Your task to perform on an android device: change your default location settings in chrome Image 0: 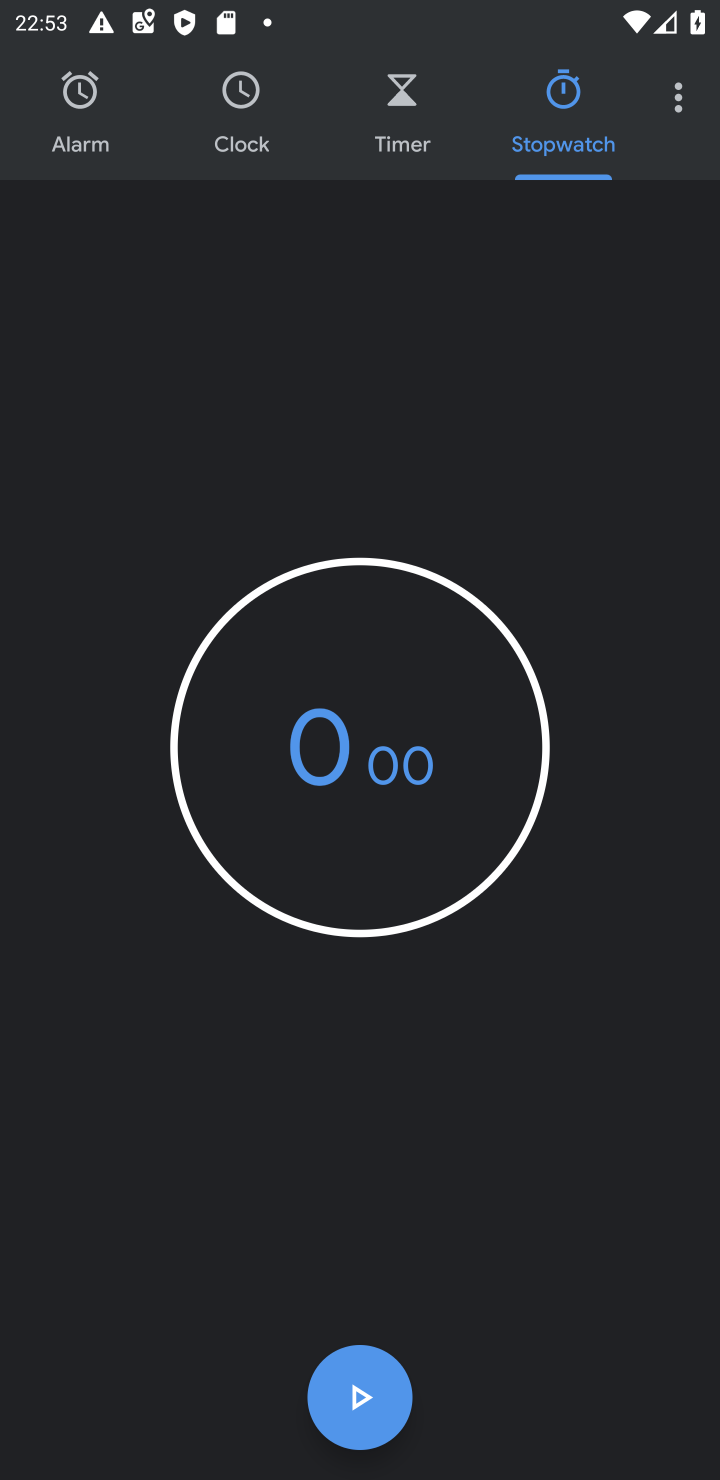
Step 0: press home button
Your task to perform on an android device: change your default location settings in chrome Image 1: 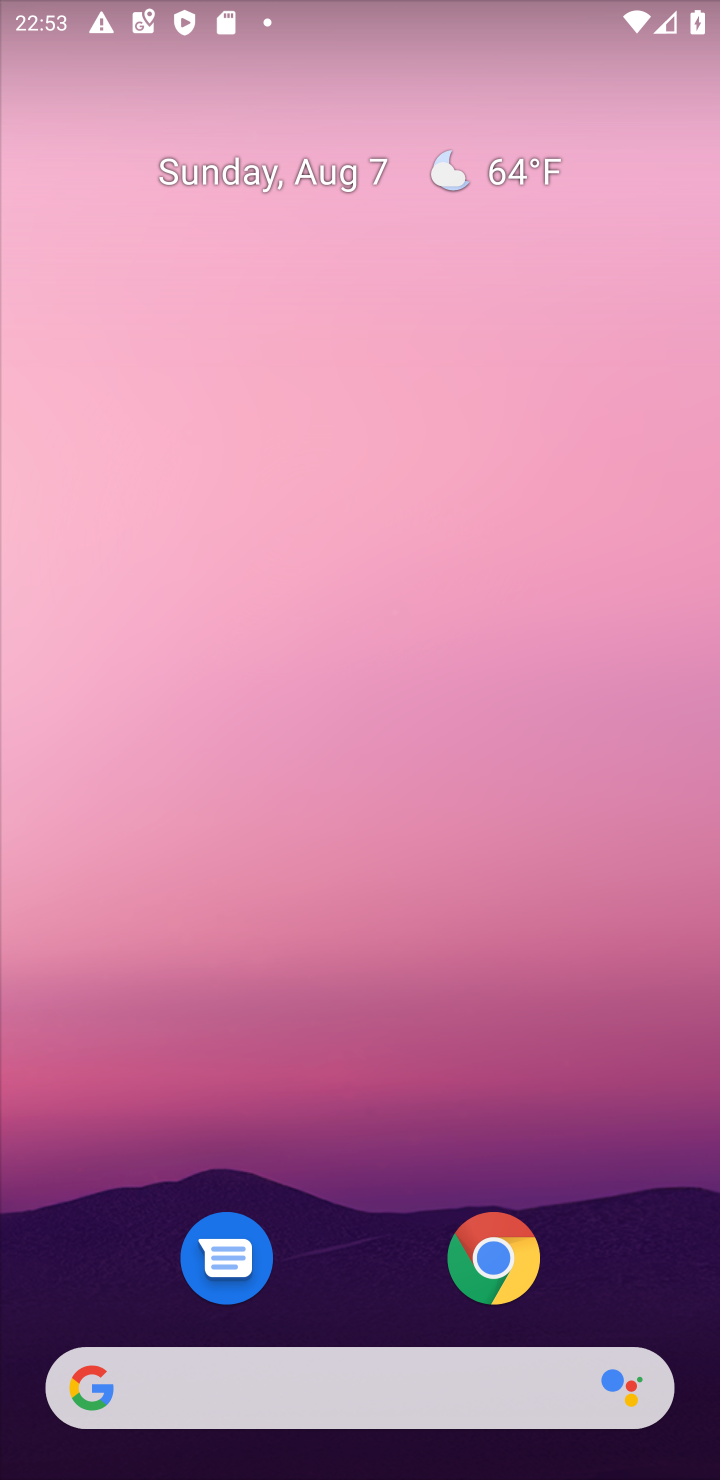
Step 1: drag from (377, 1151) to (385, 188)
Your task to perform on an android device: change your default location settings in chrome Image 2: 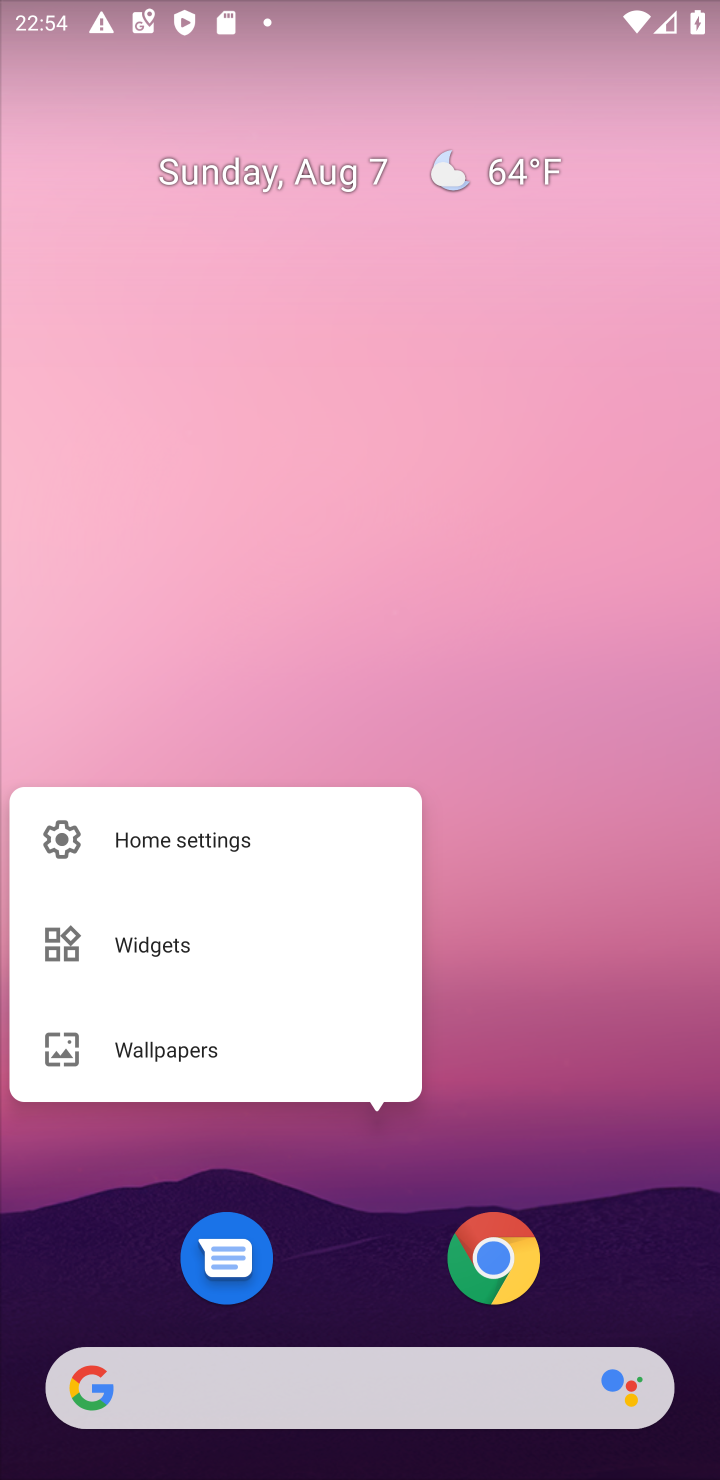
Step 2: click (630, 943)
Your task to perform on an android device: change your default location settings in chrome Image 3: 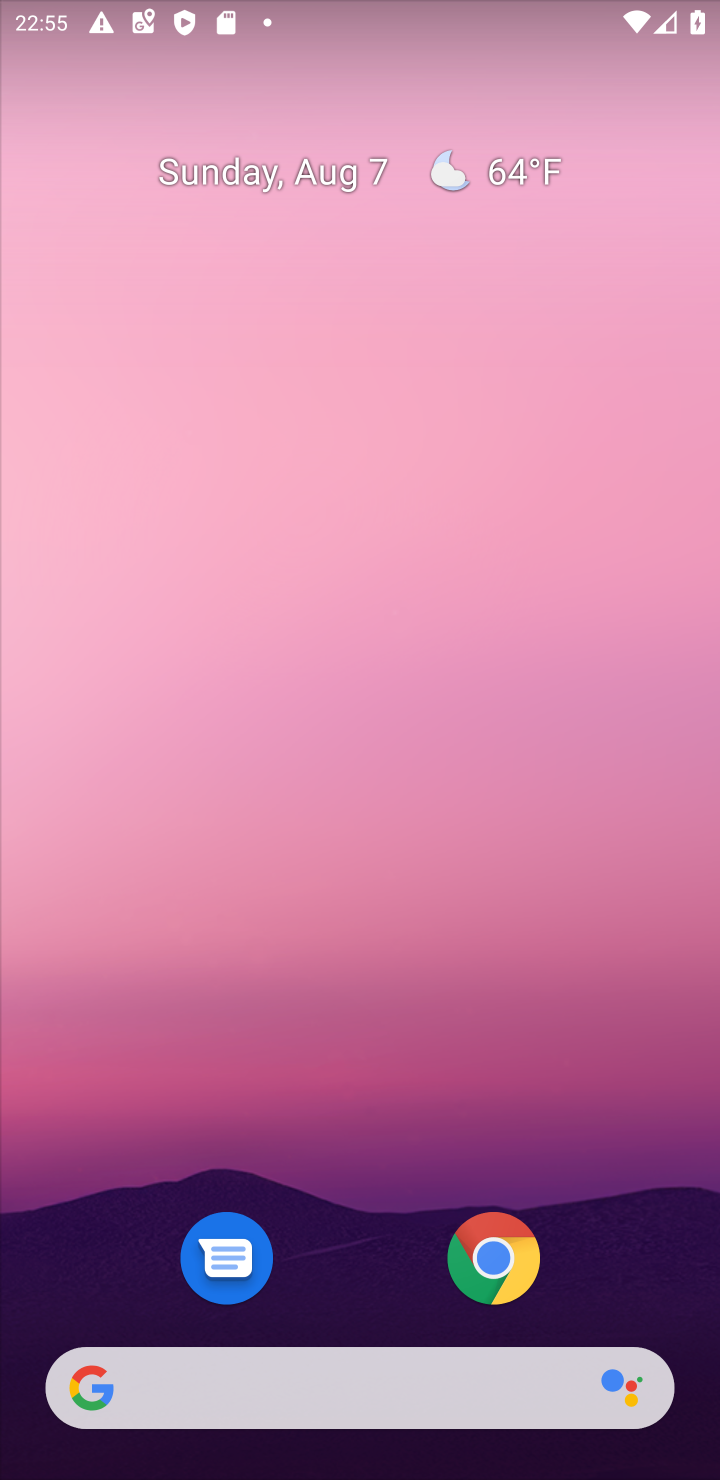
Step 3: drag from (336, 1250) to (451, 35)
Your task to perform on an android device: change your default location settings in chrome Image 4: 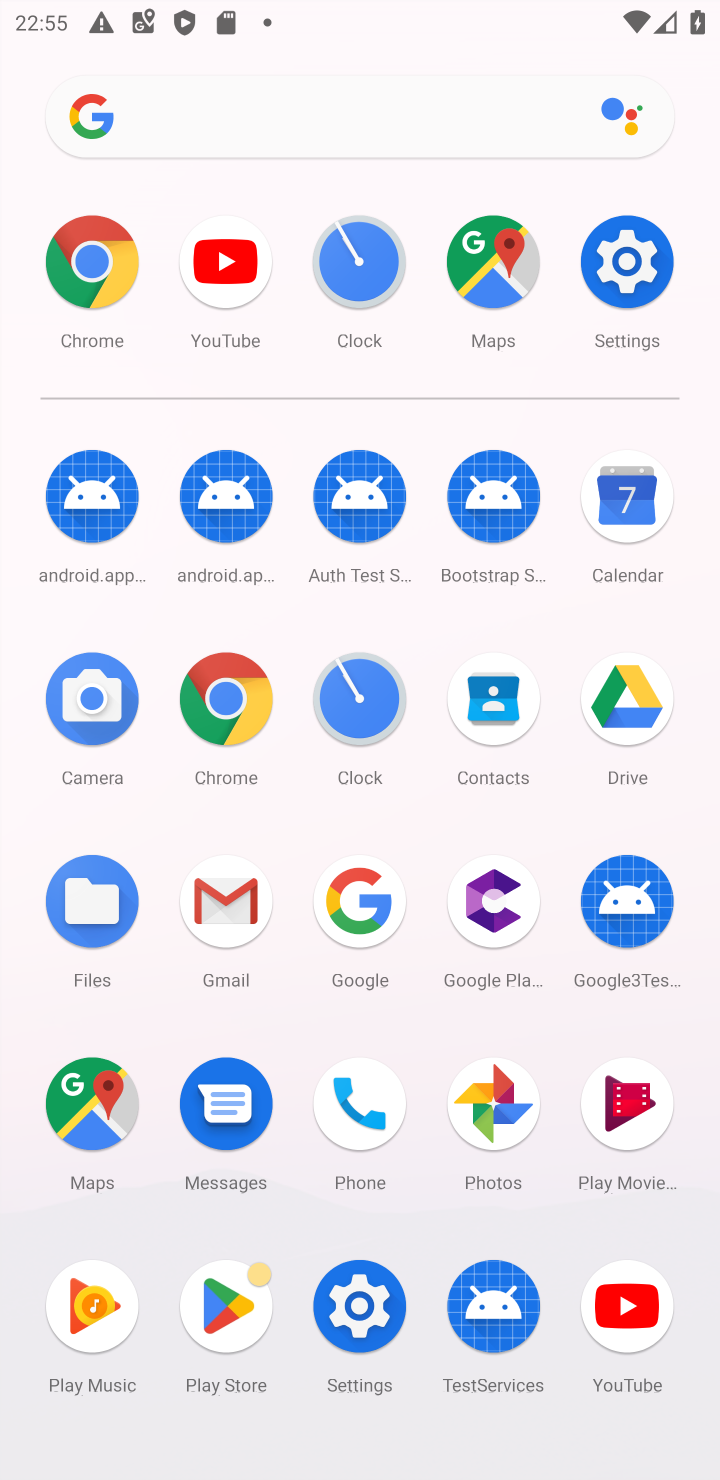
Step 4: click (377, 1310)
Your task to perform on an android device: change your default location settings in chrome Image 5: 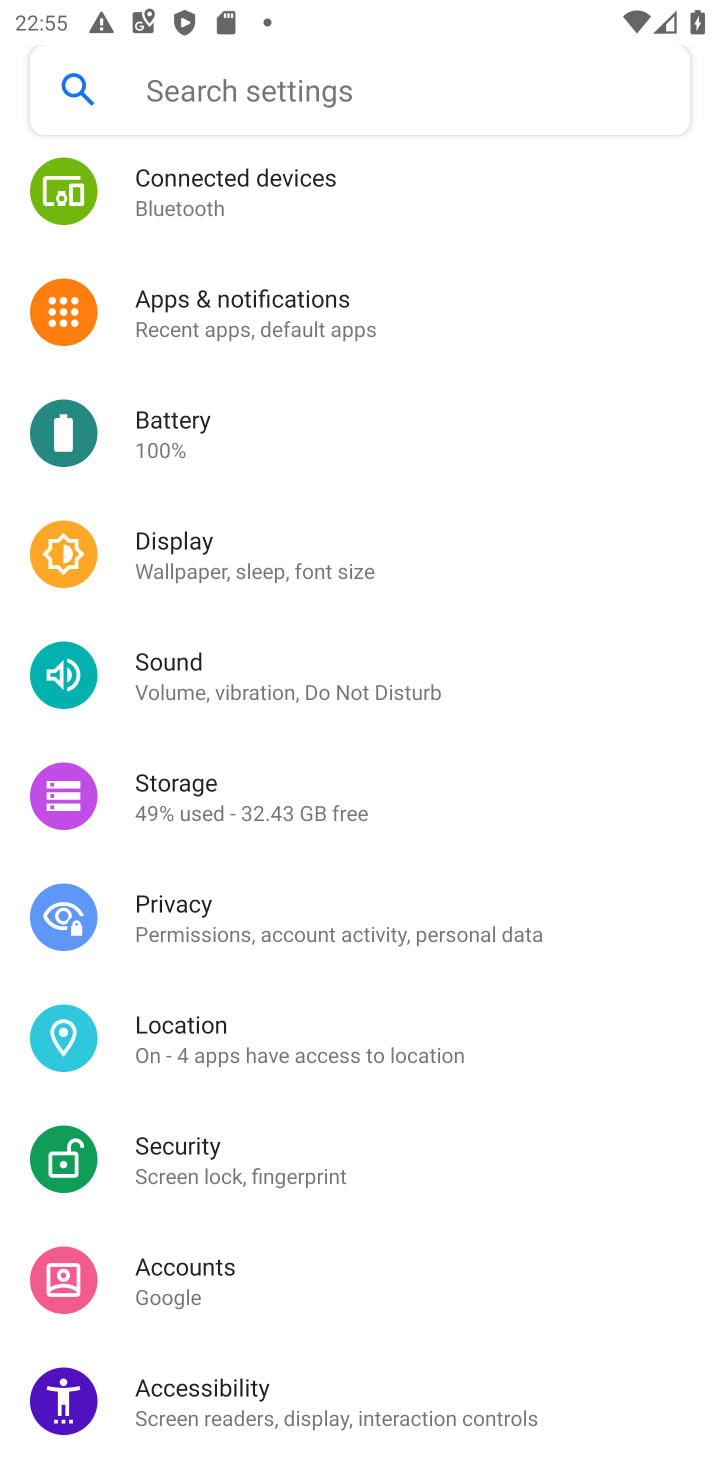
Step 5: drag from (318, 1279) to (443, 308)
Your task to perform on an android device: change your default location settings in chrome Image 6: 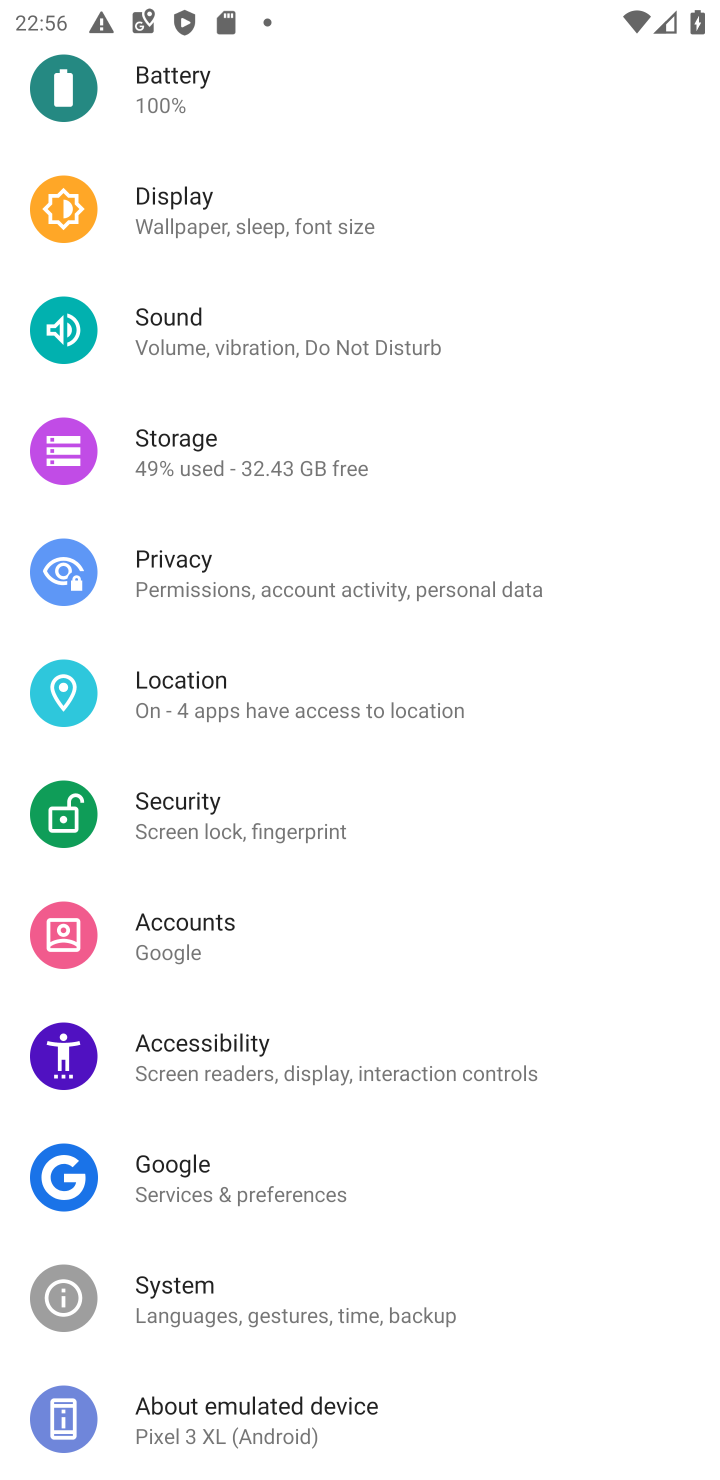
Step 6: click (189, 674)
Your task to perform on an android device: change your default location settings in chrome Image 7: 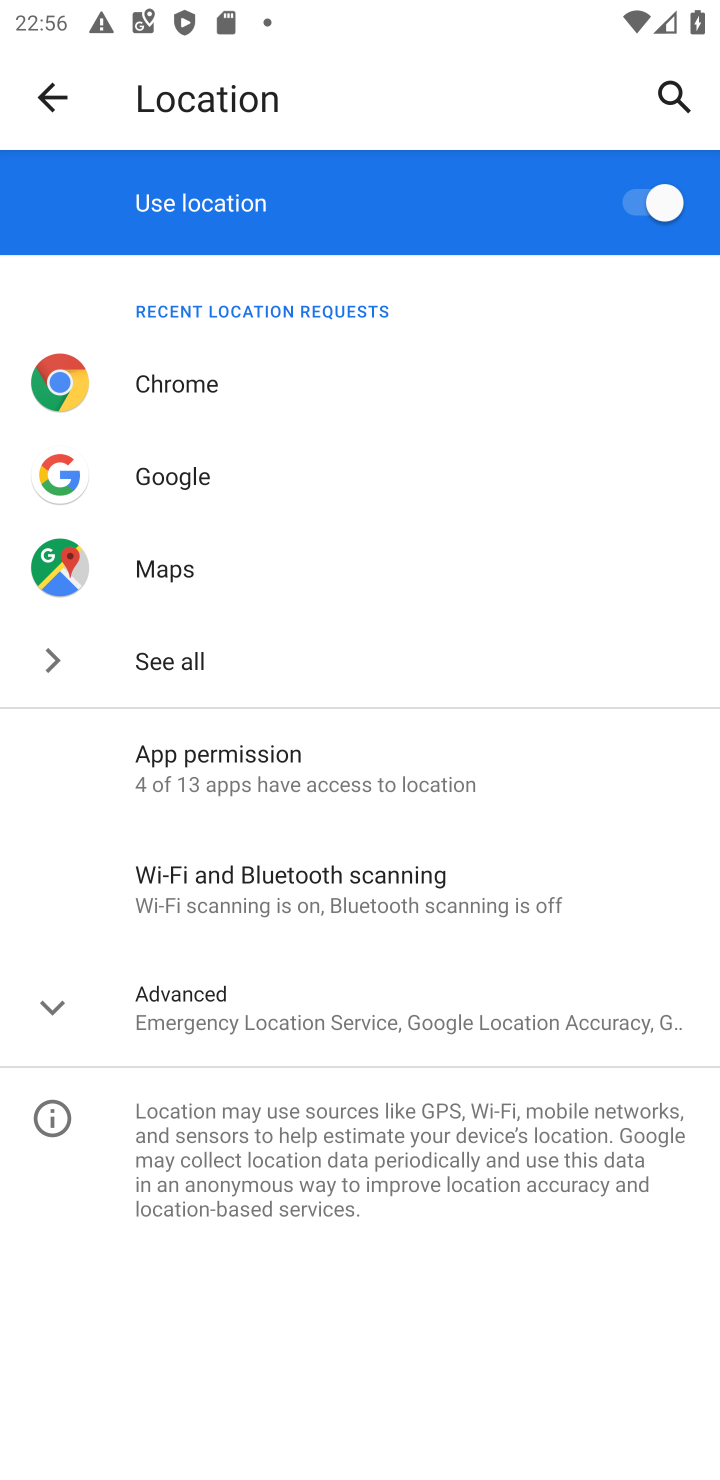
Step 7: task complete